Your task to perform on an android device: change keyboard looks Image 0: 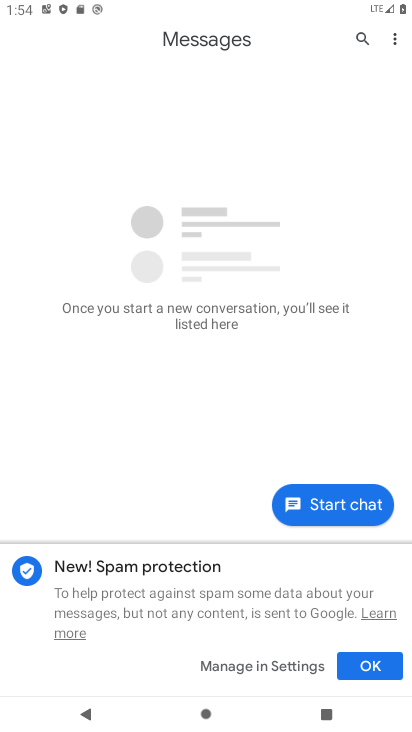
Step 0: press home button
Your task to perform on an android device: change keyboard looks Image 1: 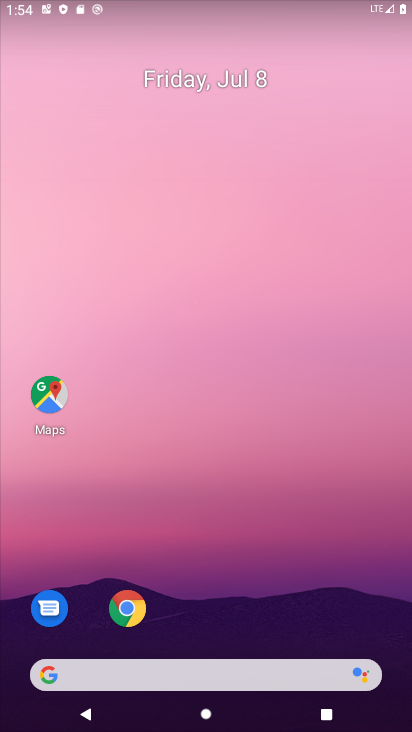
Step 1: drag from (383, 628) to (312, 83)
Your task to perform on an android device: change keyboard looks Image 2: 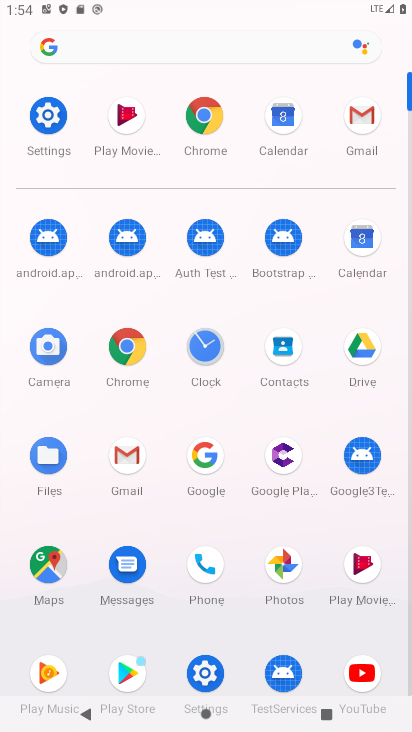
Step 2: click (206, 675)
Your task to perform on an android device: change keyboard looks Image 3: 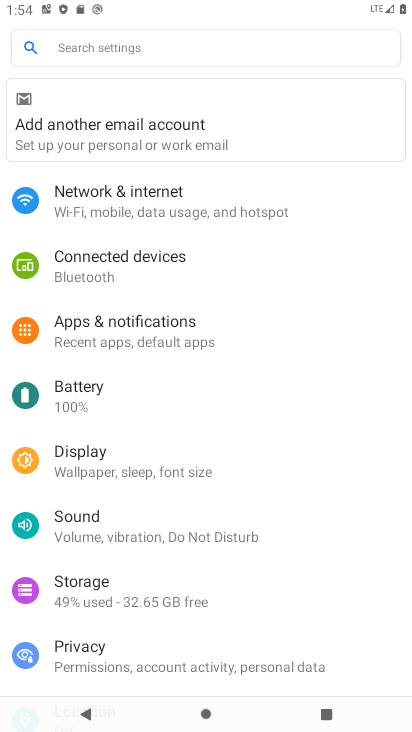
Step 3: drag from (368, 591) to (309, 100)
Your task to perform on an android device: change keyboard looks Image 4: 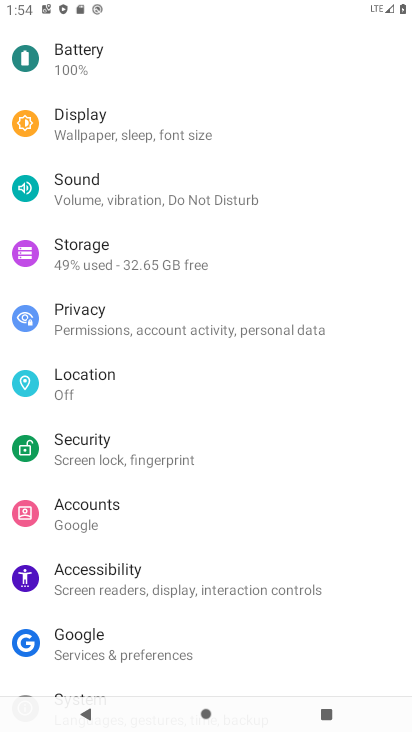
Step 4: drag from (336, 590) to (346, 154)
Your task to perform on an android device: change keyboard looks Image 5: 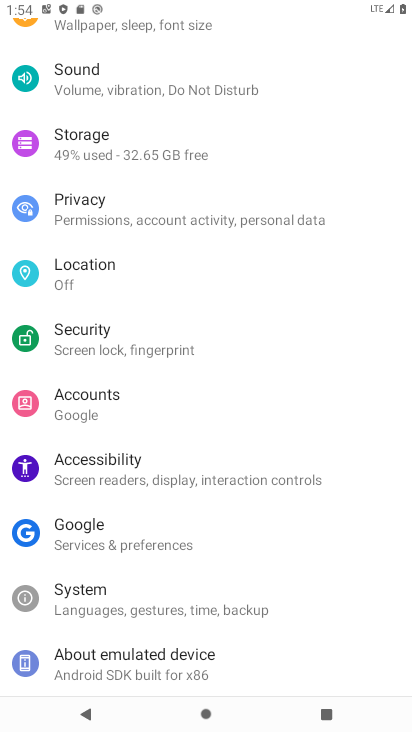
Step 5: click (78, 597)
Your task to perform on an android device: change keyboard looks Image 6: 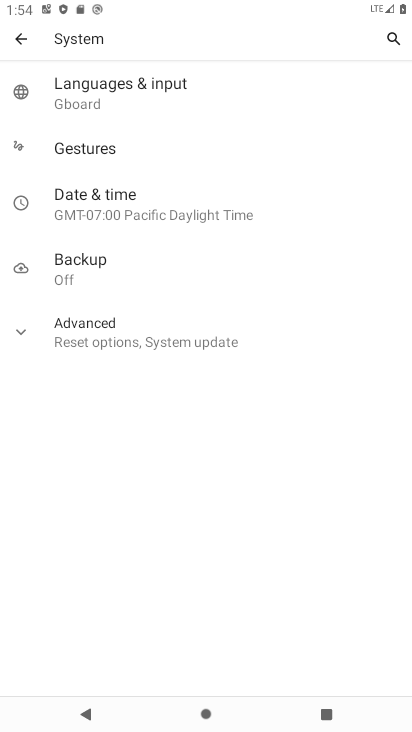
Step 6: click (82, 90)
Your task to perform on an android device: change keyboard looks Image 7: 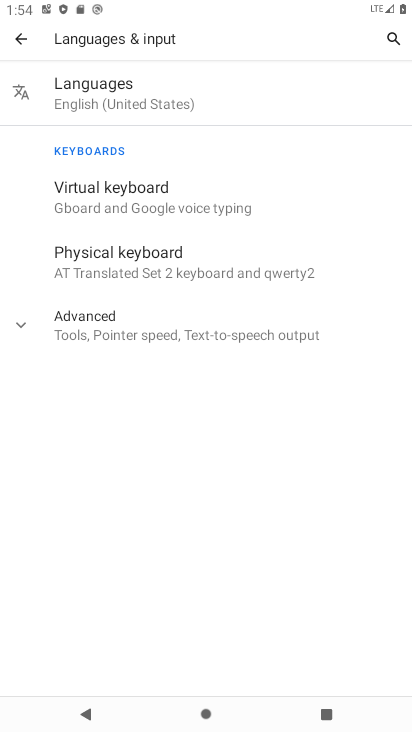
Step 7: click (89, 253)
Your task to perform on an android device: change keyboard looks Image 8: 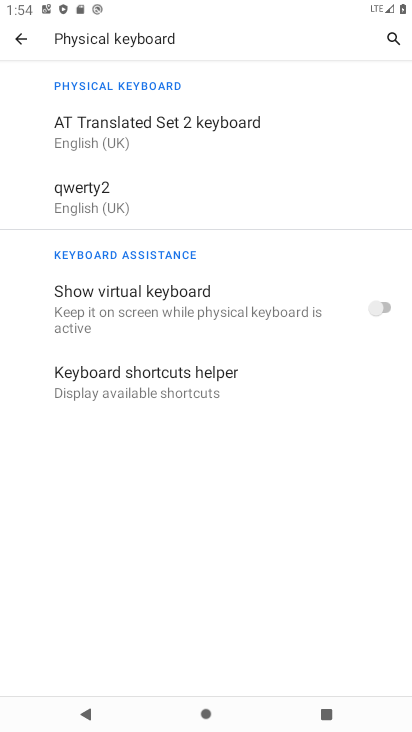
Step 8: click (84, 193)
Your task to perform on an android device: change keyboard looks Image 9: 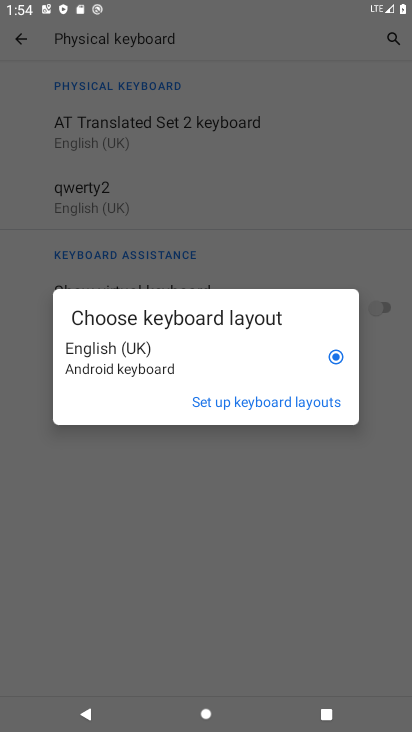
Step 9: click (285, 404)
Your task to perform on an android device: change keyboard looks Image 10: 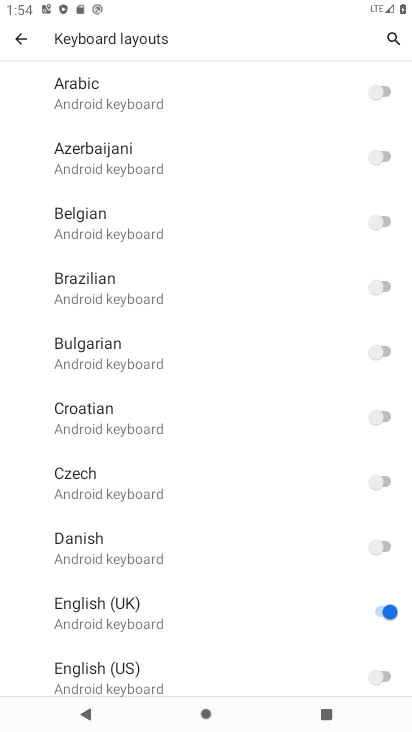
Step 10: drag from (317, 622) to (291, 198)
Your task to perform on an android device: change keyboard looks Image 11: 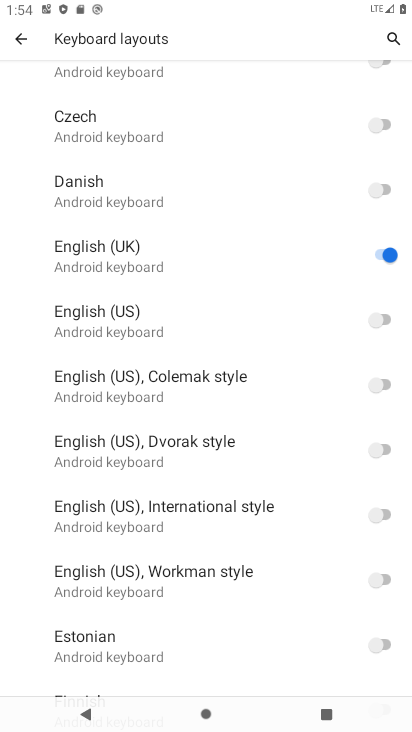
Step 11: click (387, 321)
Your task to perform on an android device: change keyboard looks Image 12: 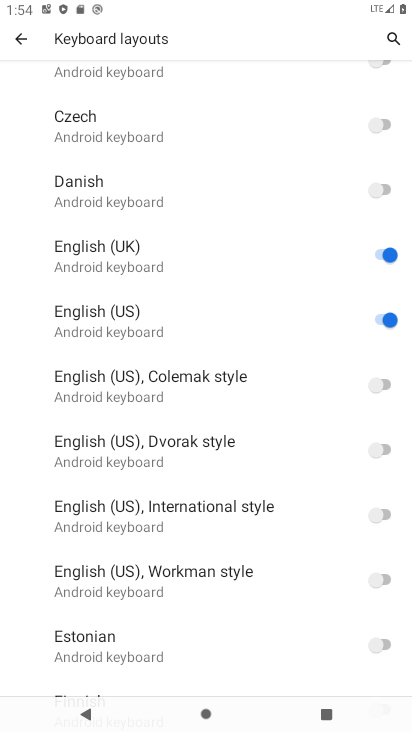
Step 12: task complete